Your task to perform on an android device: open the mobile data screen to see how much data has been used Image 0: 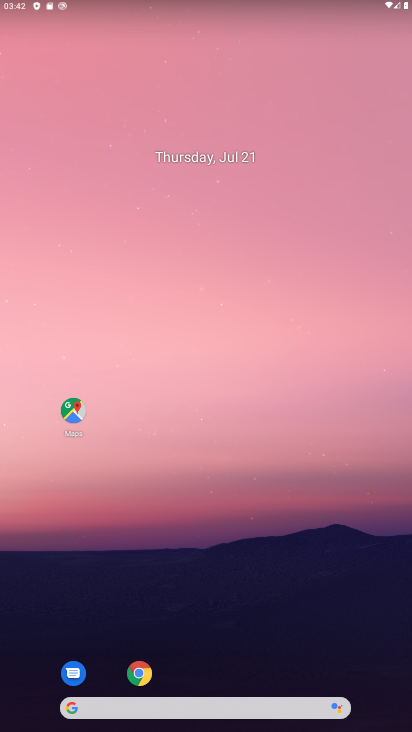
Step 0: drag from (299, 634) to (283, 105)
Your task to perform on an android device: open the mobile data screen to see how much data has been used Image 1: 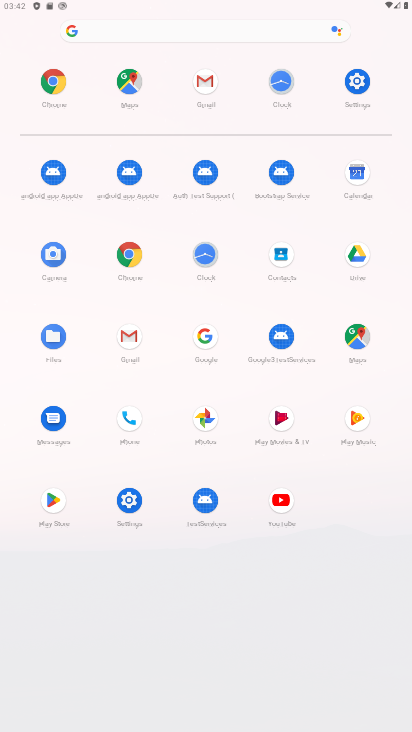
Step 1: click (355, 75)
Your task to perform on an android device: open the mobile data screen to see how much data has been used Image 2: 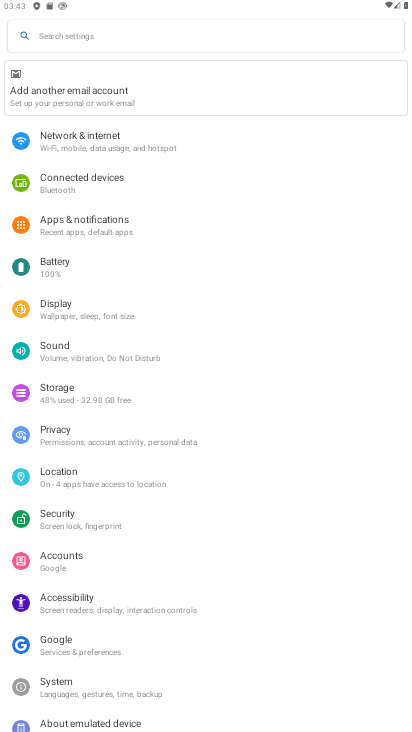
Step 2: click (85, 135)
Your task to perform on an android device: open the mobile data screen to see how much data has been used Image 3: 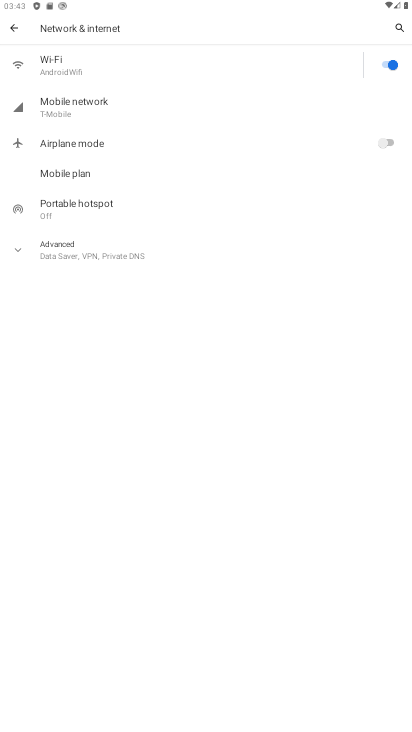
Step 3: click (96, 116)
Your task to perform on an android device: open the mobile data screen to see how much data has been used Image 4: 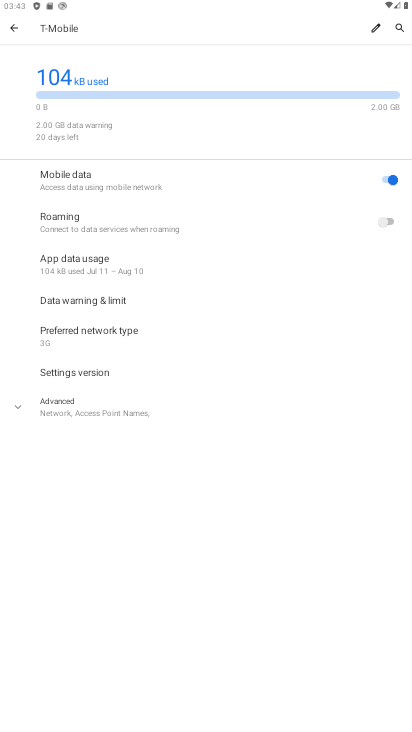
Step 4: task complete